Your task to perform on an android device: toggle location history Image 0: 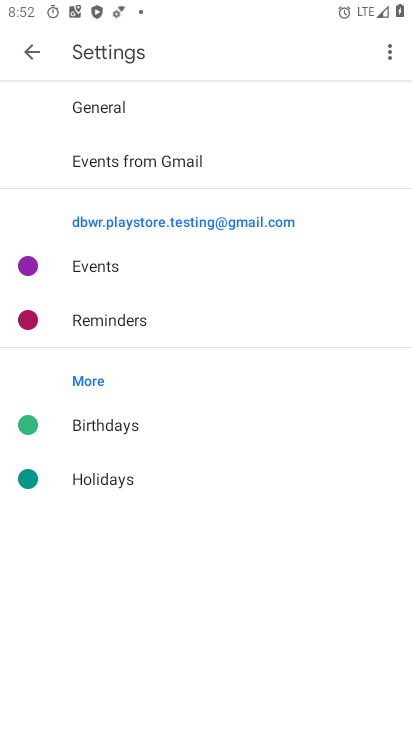
Step 0: press home button
Your task to perform on an android device: toggle location history Image 1: 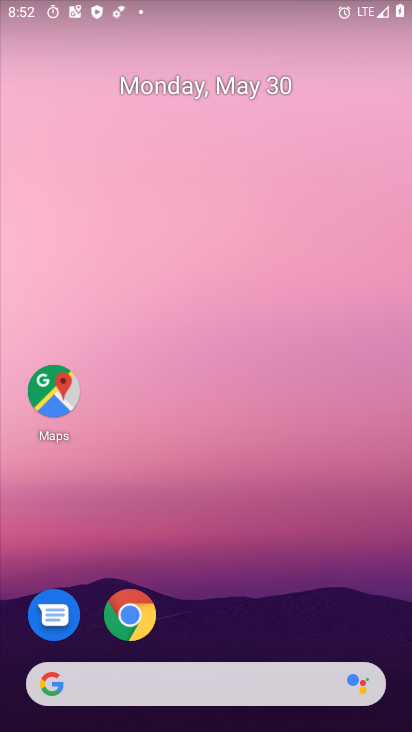
Step 1: drag from (303, 570) to (372, 43)
Your task to perform on an android device: toggle location history Image 2: 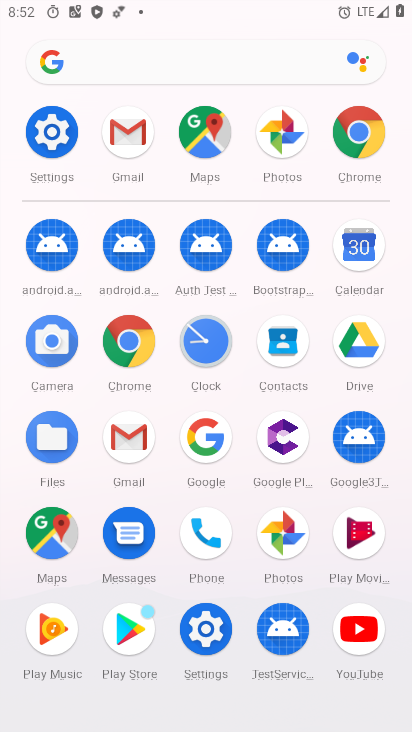
Step 2: click (55, 125)
Your task to perform on an android device: toggle location history Image 3: 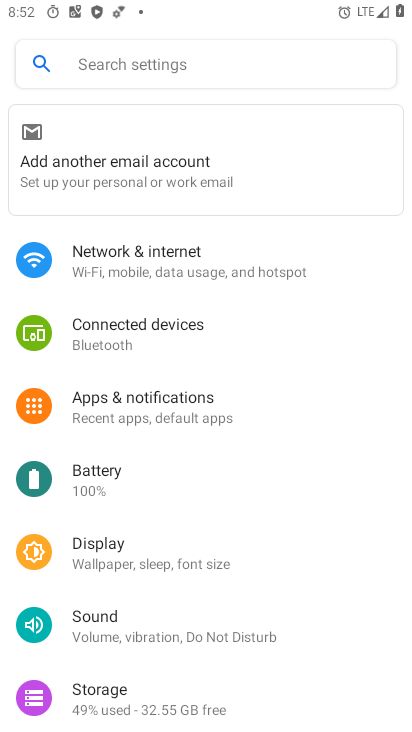
Step 3: drag from (211, 618) to (246, 281)
Your task to perform on an android device: toggle location history Image 4: 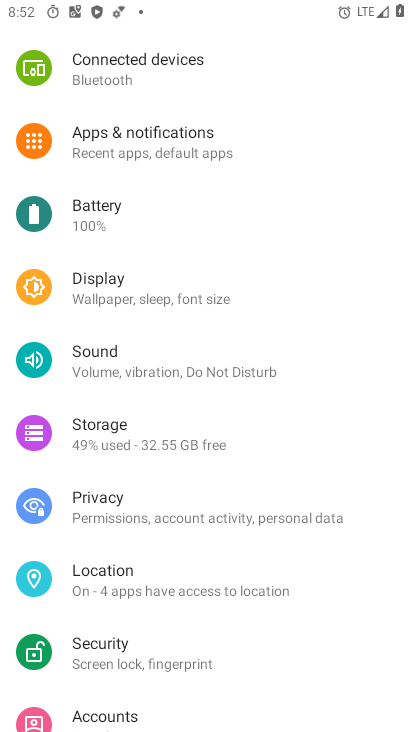
Step 4: click (124, 573)
Your task to perform on an android device: toggle location history Image 5: 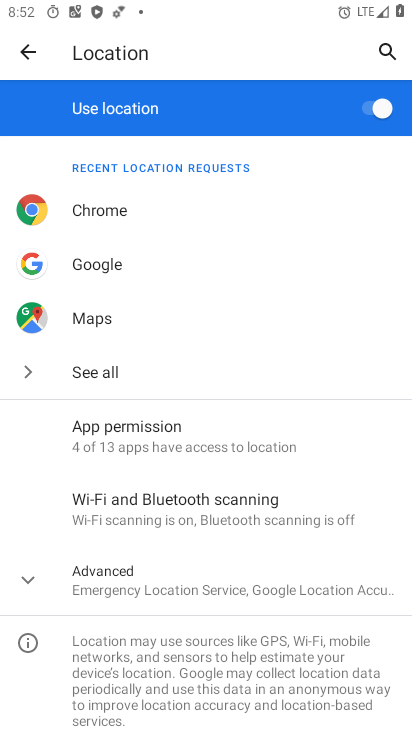
Step 5: drag from (224, 535) to (226, 238)
Your task to perform on an android device: toggle location history Image 6: 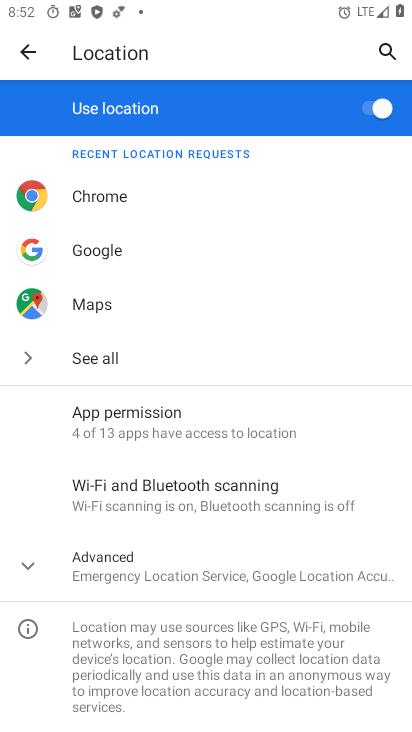
Step 6: click (115, 566)
Your task to perform on an android device: toggle location history Image 7: 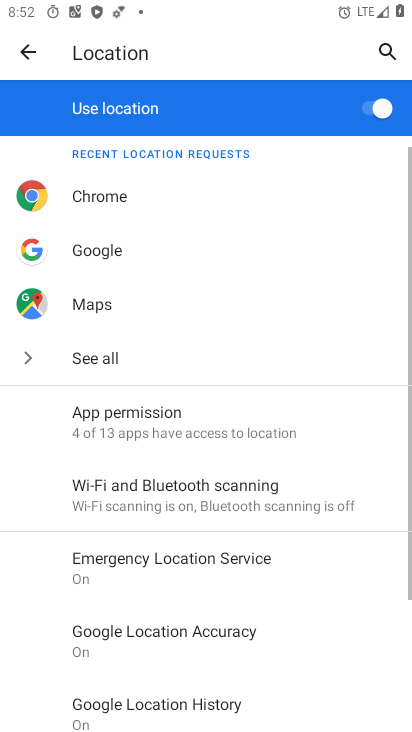
Step 7: drag from (156, 634) to (217, 238)
Your task to perform on an android device: toggle location history Image 8: 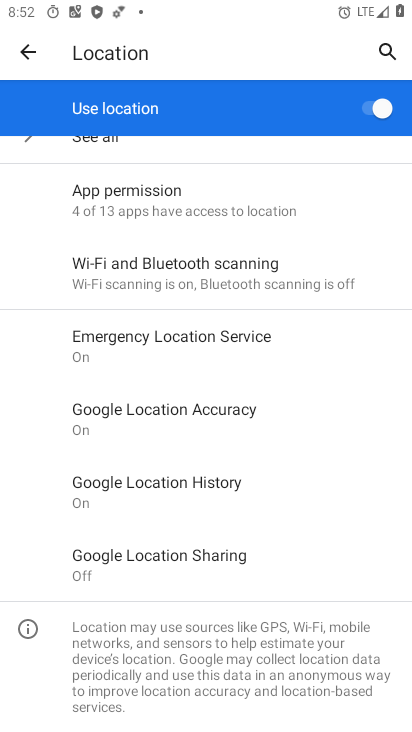
Step 8: click (176, 481)
Your task to perform on an android device: toggle location history Image 9: 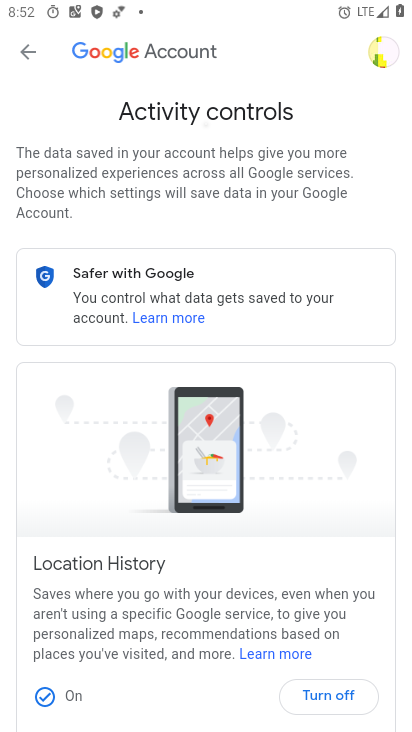
Step 9: drag from (315, 561) to (315, 152)
Your task to perform on an android device: toggle location history Image 10: 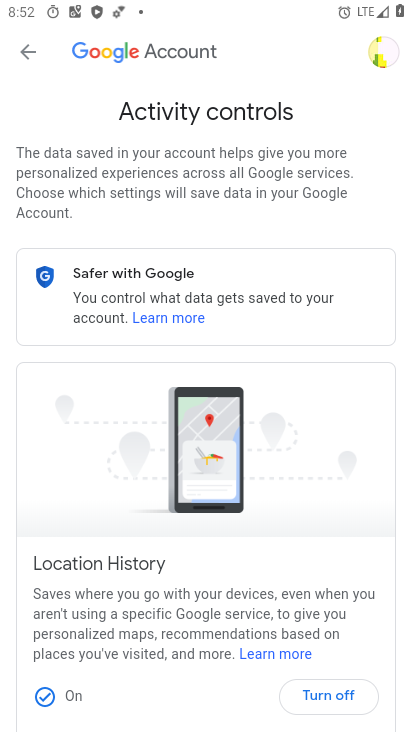
Step 10: drag from (307, 619) to (305, 314)
Your task to perform on an android device: toggle location history Image 11: 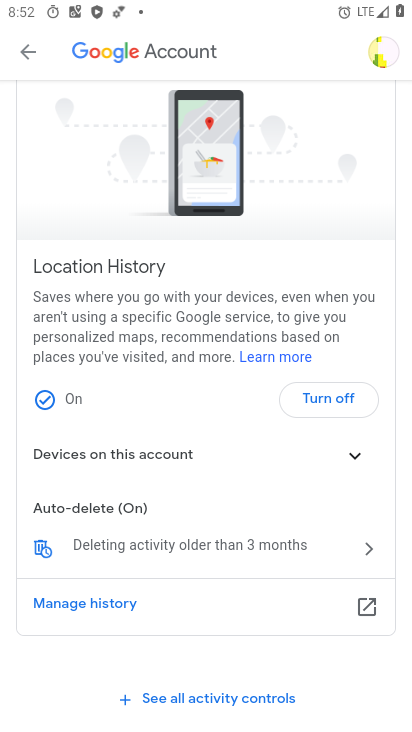
Step 11: drag from (265, 575) to (279, 243)
Your task to perform on an android device: toggle location history Image 12: 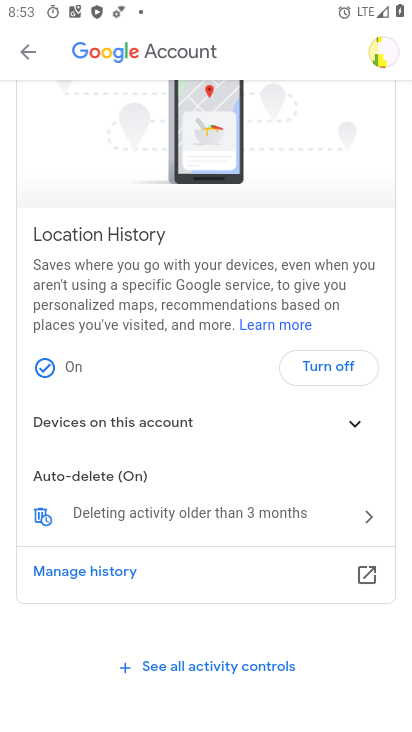
Step 12: click (346, 365)
Your task to perform on an android device: toggle location history Image 13: 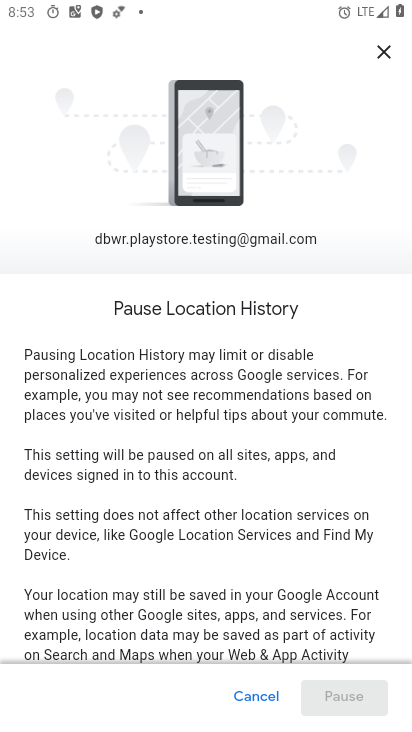
Step 13: drag from (261, 591) to (198, 222)
Your task to perform on an android device: toggle location history Image 14: 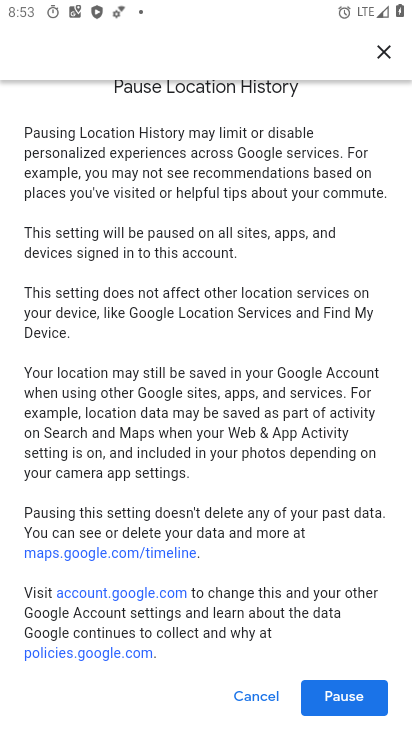
Step 14: drag from (259, 571) to (267, 214)
Your task to perform on an android device: toggle location history Image 15: 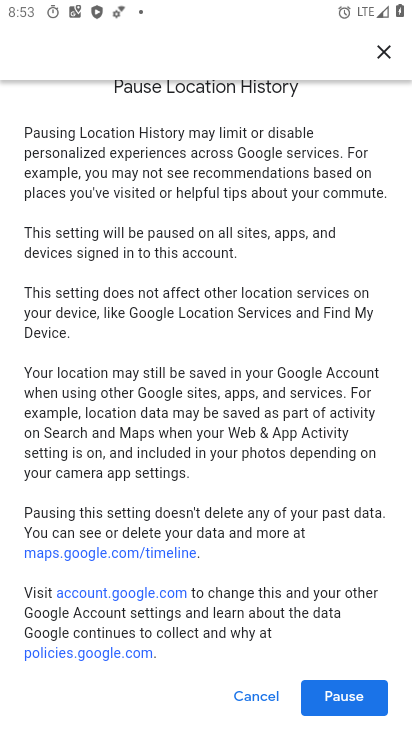
Step 15: click (337, 693)
Your task to perform on an android device: toggle location history Image 16: 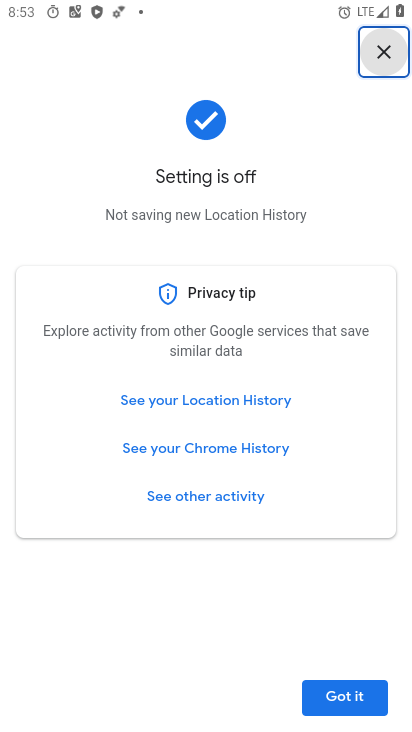
Step 16: click (337, 693)
Your task to perform on an android device: toggle location history Image 17: 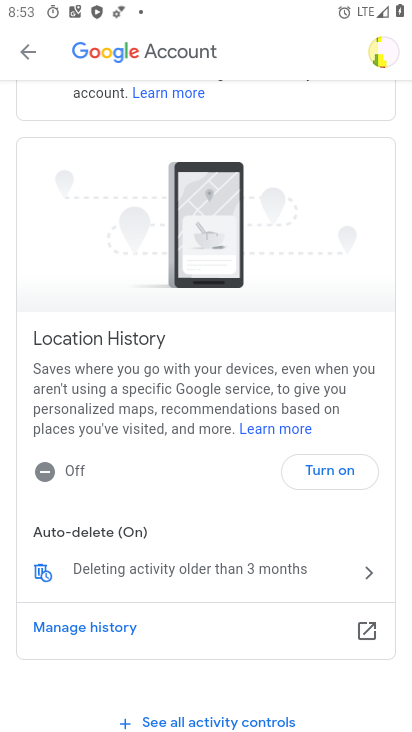
Step 17: task complete